Your task to perform on an android device: Open Chrome and go to settings Image 0: 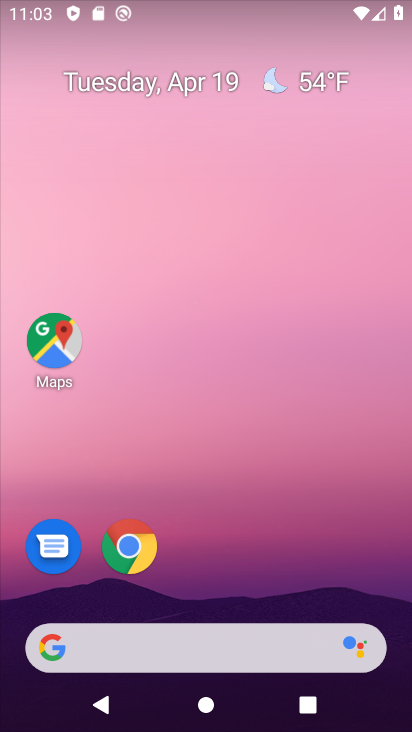
Step 0: click (139, 560)
Your task to perform on an android device: Open Chrome and go to settings Image 1: 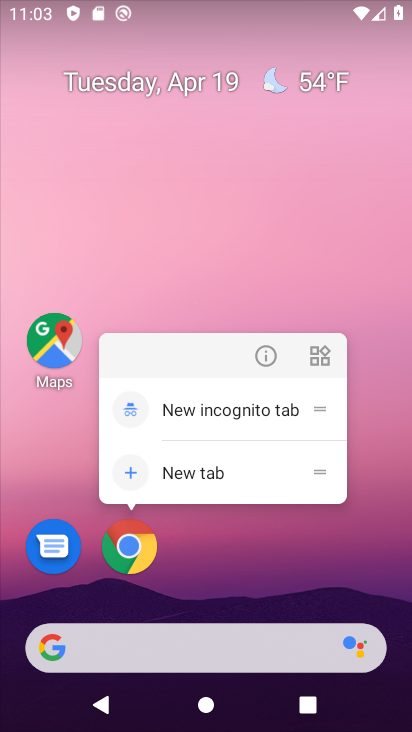
Step 1: click (139, 560)
Your task to perform on an android device: Open Chrome and go to settings Image 2: 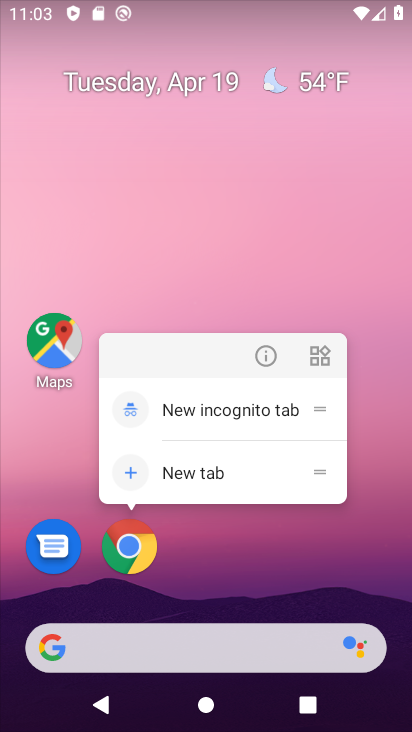
Step 2: click (139, 560)
Your task to perform on an android device: Open Chrome and go to settings Image 3: 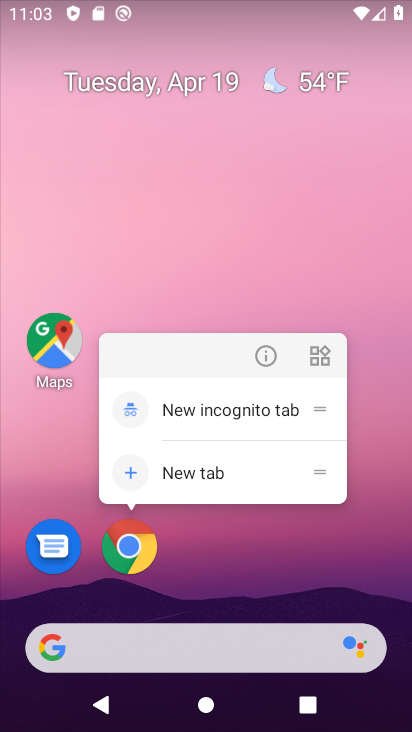
Step 3: click (139, 560)
Your task to perform on an android device: Open Chrome and go to settings Image 4: 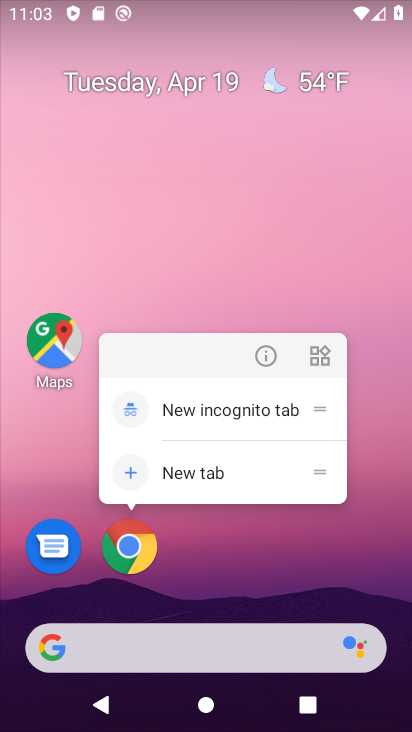
Step 4: click (139, 560)
Your task to perform on an android device: Open Chrome and go to settings Image 5: 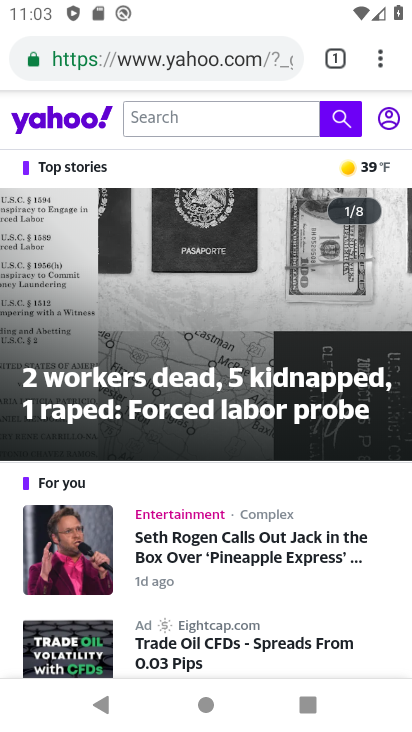
Step 5: click (376, 51)
Your task to perform on an android device: Open Chrome and go to settings Image 6: 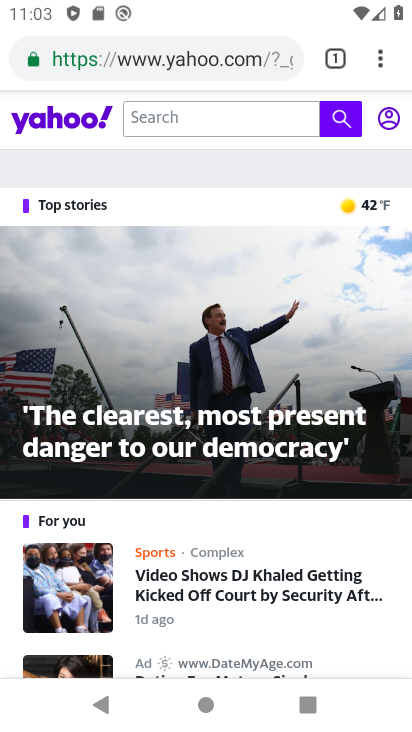
Step 6: click (374, 66)
Your task to perform on an android device: Open Chrome and go to settings Image 7: 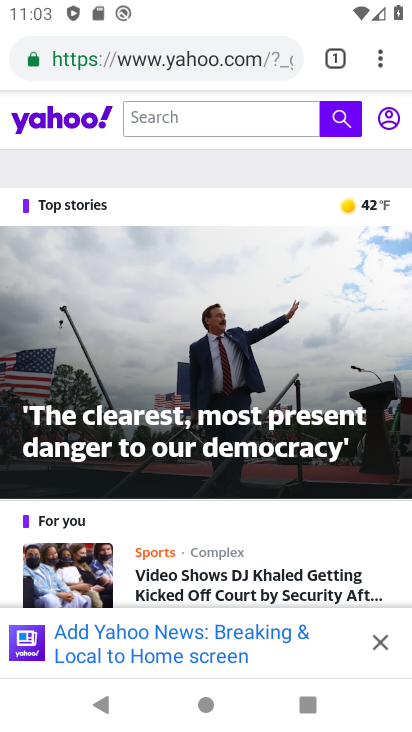
Step 7: click (380, 59)
Your task to perform on an android device: Open Chrome and go to settings Image 8: 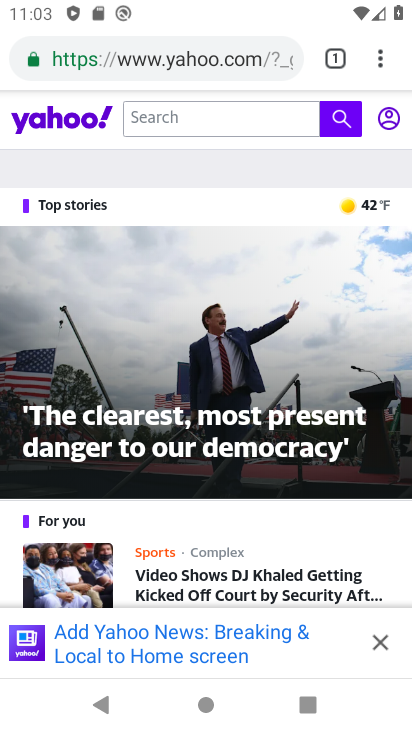
Step 8: drag from (381, 58) to (245, 574)
Your task to perform on an android device: Open Chrome and go to settings Image 9: 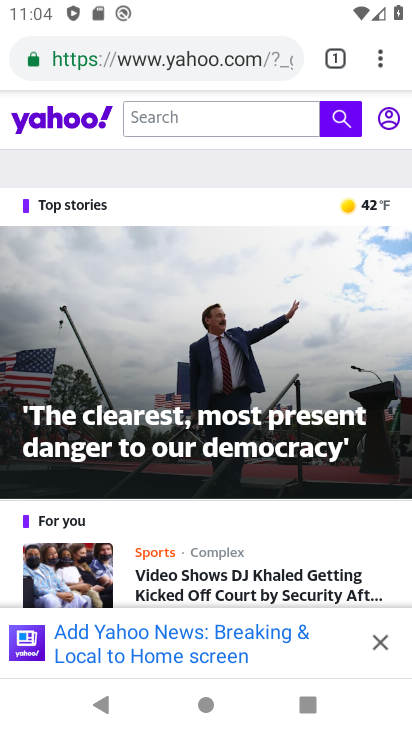
Step 9: click (245, 573)
Your task to perform on an android device: Open Chrome and go to settings Image 10: 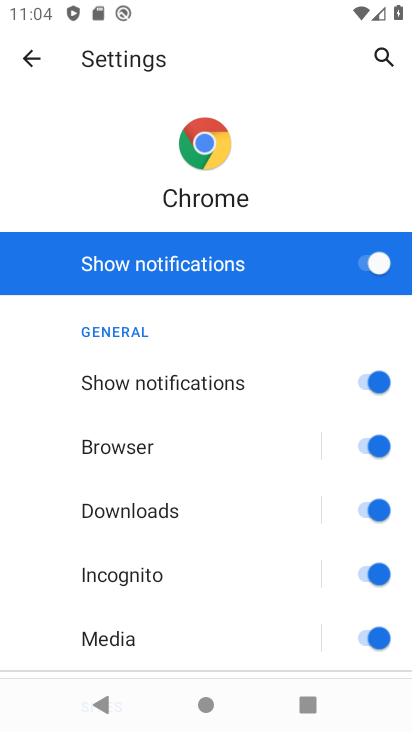
Step 10: task complete